Your task to perform on an android device: Search for pizza restaurants on Maps Image 0: 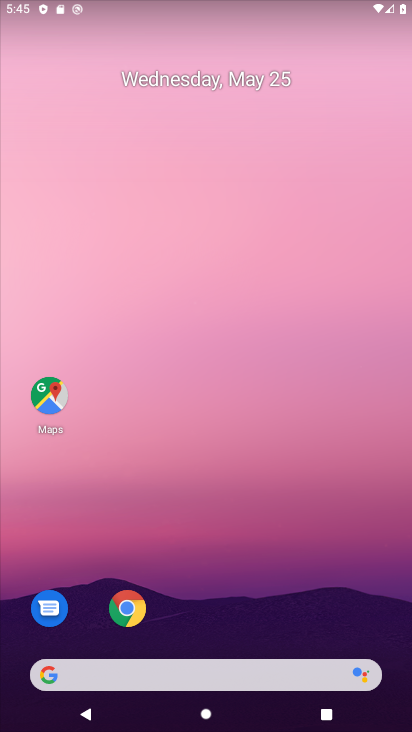
Step 0: click (52, 397)
Your task to perform on an android device: Search for pizza restaurants on Maps Image 1: 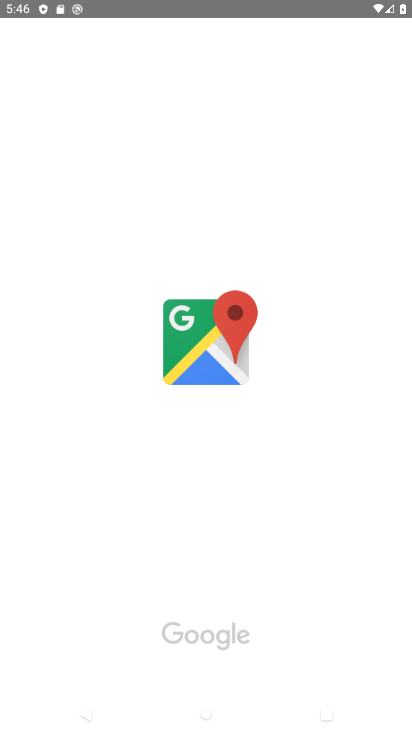
Step 1: click (52, 397)
Your task to perform on an android device: Search for pizza restaurants on Maps Image 2: 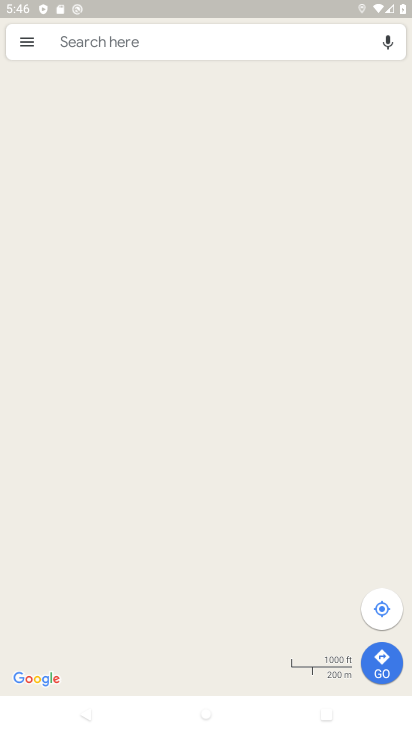
Step 2: click (271, 38)
Your task to perform on an android device: Search for pizza restaurants on Maps Image 3: 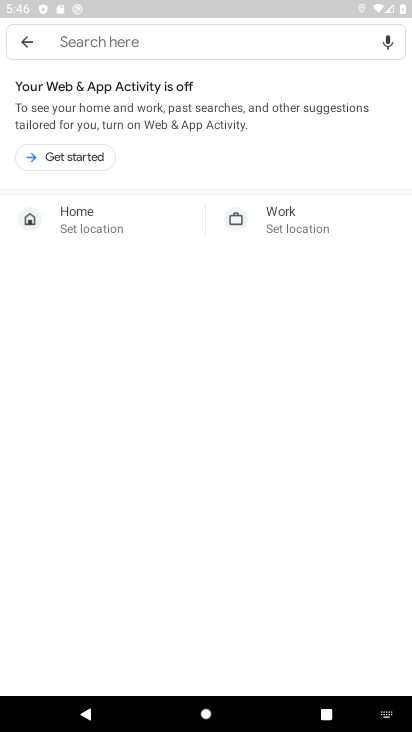
Step 3: click (200, 45)
Your task to perform on an android device: Search for pizza restaurants on Maps Image 4: 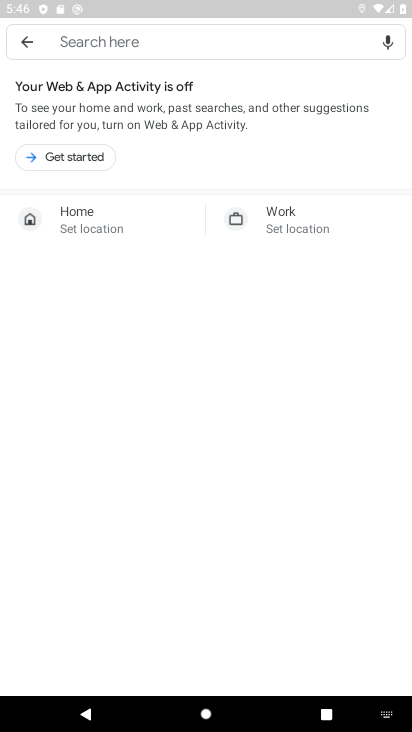
Step 4: click (200, 45)
Your task to perform on an android device: Search for pizza restaurants on Maps Image 5: 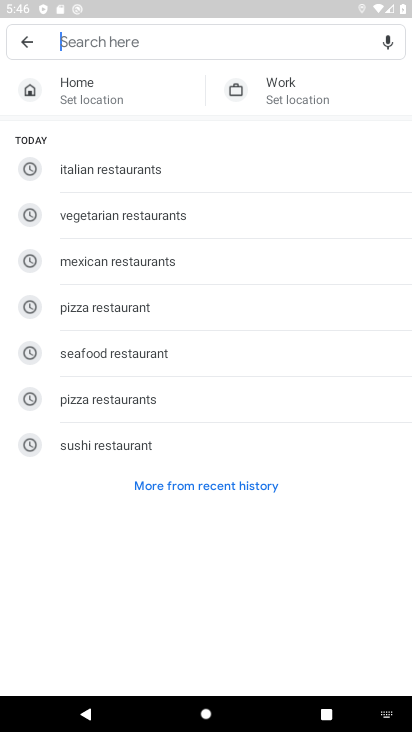
Step 5: type "pi"
Your task to perform on an android device: Search for pizza restaurants on Maps Image 6: 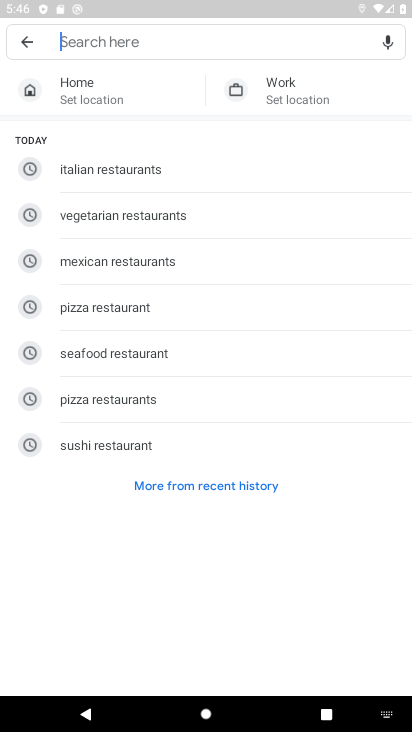
Step 6: click (147, 307)
Your task to perform on an android device: Search for pizza restaurants on Maps Image 7: 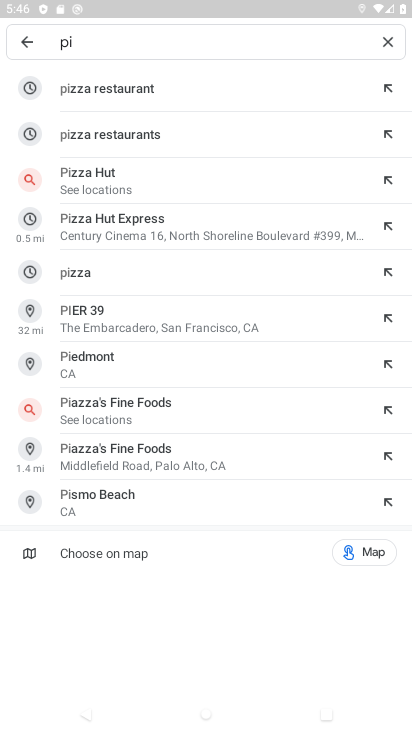
Step 7: click (137, 89)
Your task to perform on an android device: Search for pizza restaurants on Maps Image 8: 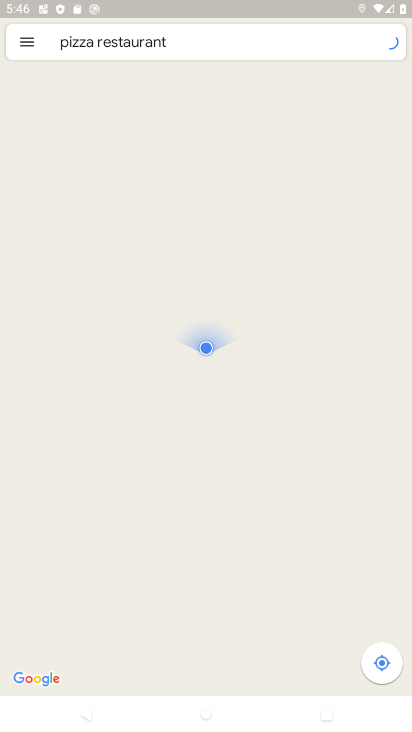
Step 8: task complete